Your task to perform on an android device: open app "Google Sheets" (install if not already installed) Image 0: 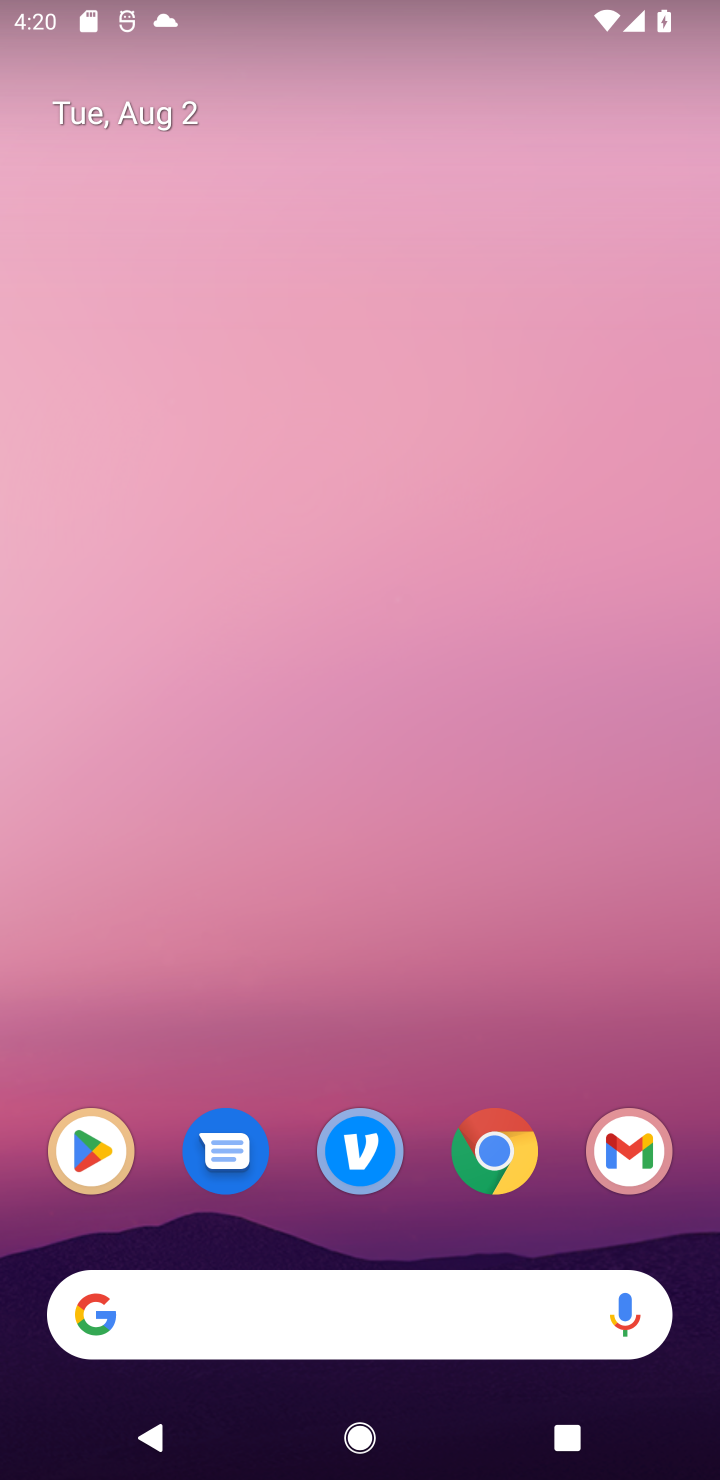
Step 0: drag from (433, 516) to (441, 432)
Your task to perform on an android device: open app "Google Sheets" (install if not already installed) Image 1: 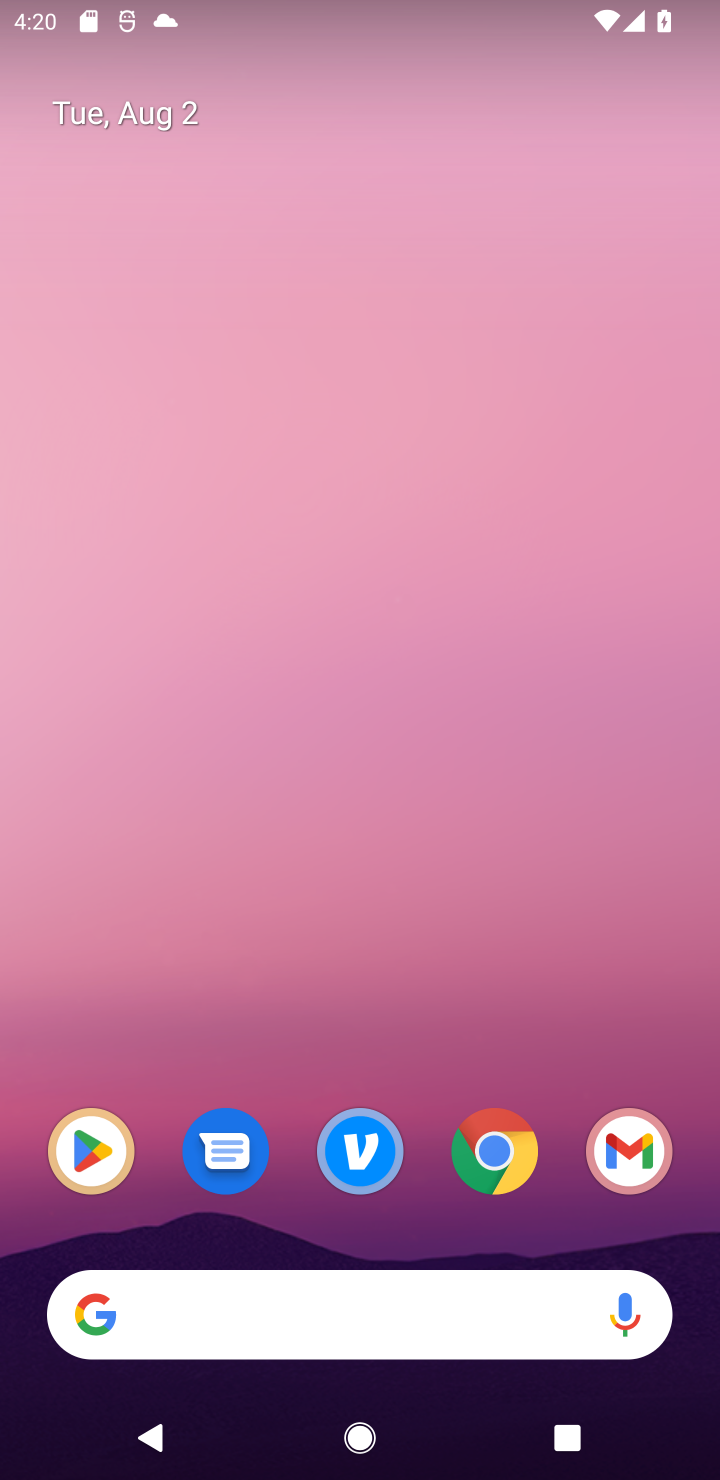
Step 1: drag from (370, 1326) to (340, 355)
Your task to perform on an android device: open app "Google Sheets" (install if not already installed) Image 2: 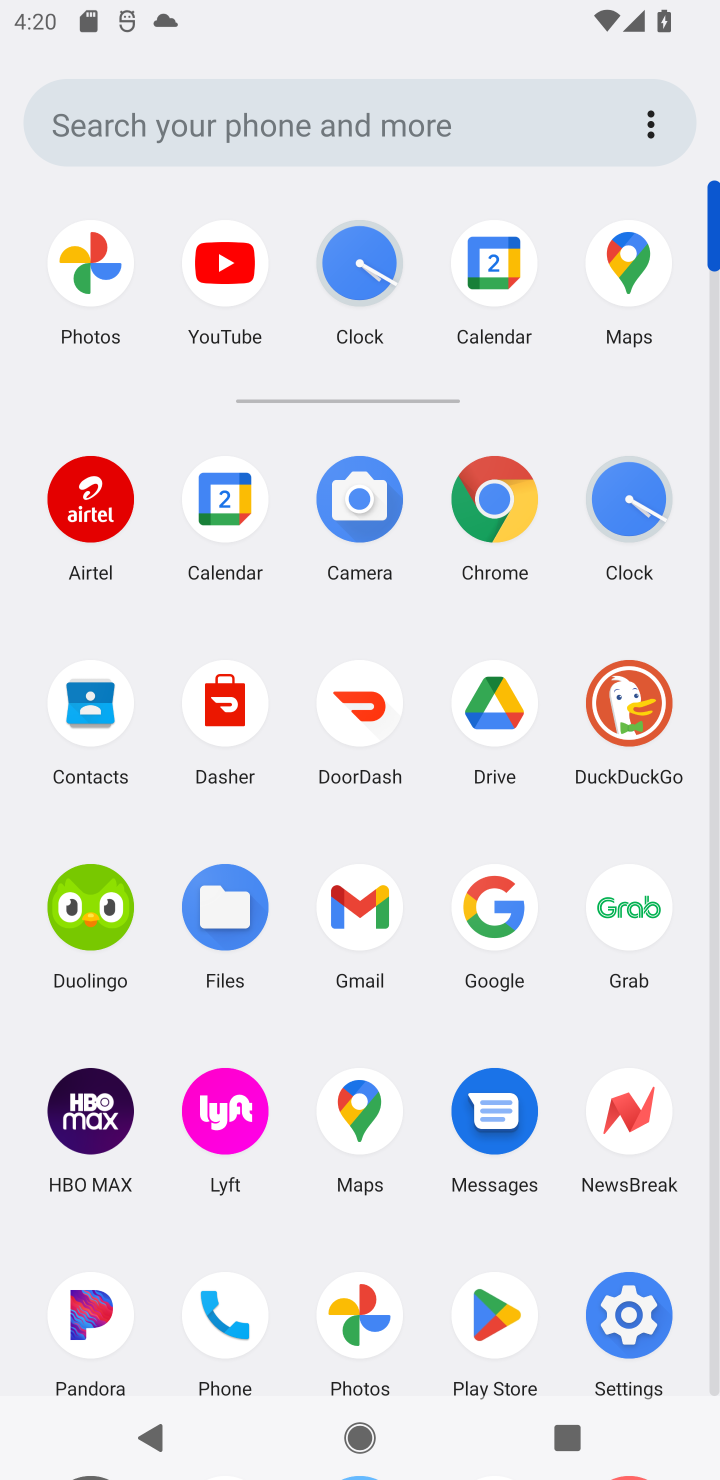
Step 2: click (485, 1340)
Your task to perform on an android device: open app "Google Sheets" (install if not already installed) Image 3: 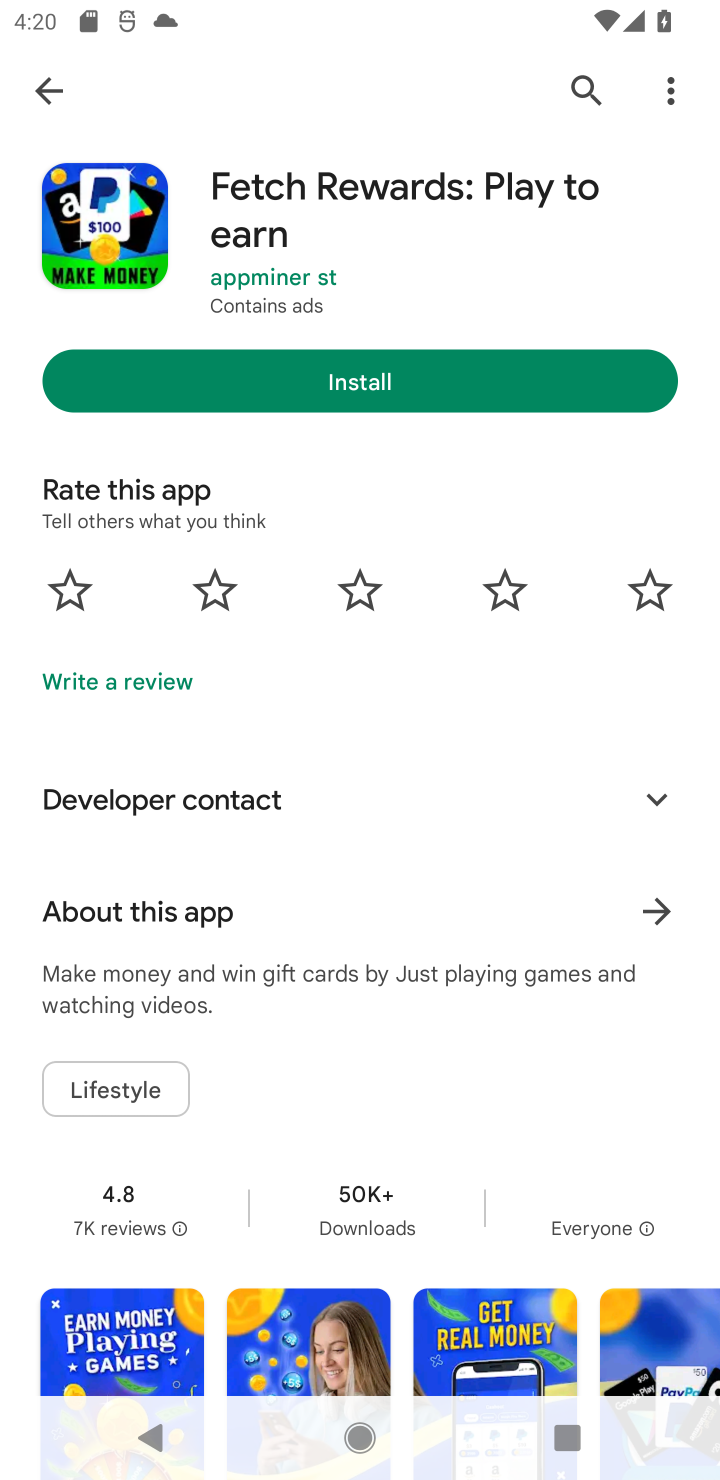
Step 3: click (44, 81)
Your task to perform on an android device: open app "Google Sheets" (install if not already installed) Image 4: 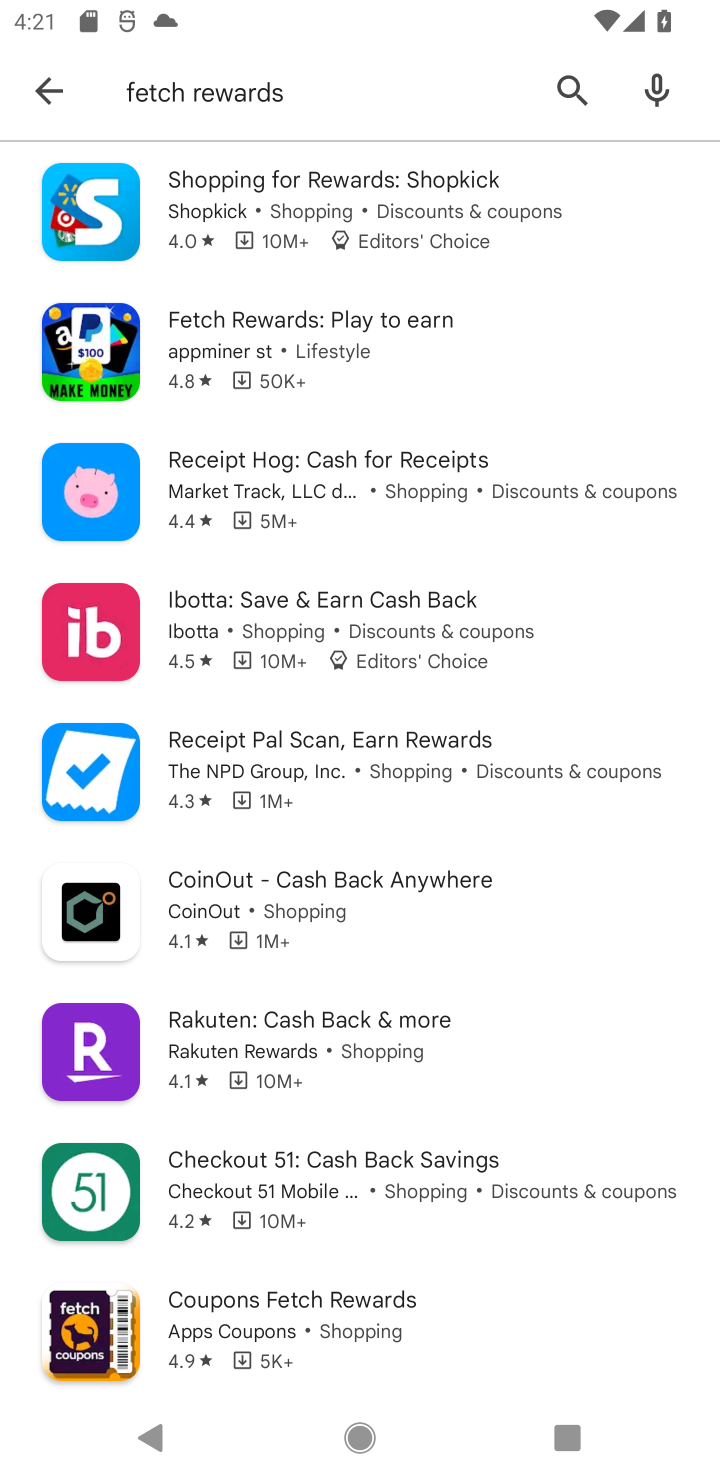
Step 4: click (57, 90)
Your task to perform on an android device: open app "Google Sheets" (install if not already installed) Image 5: 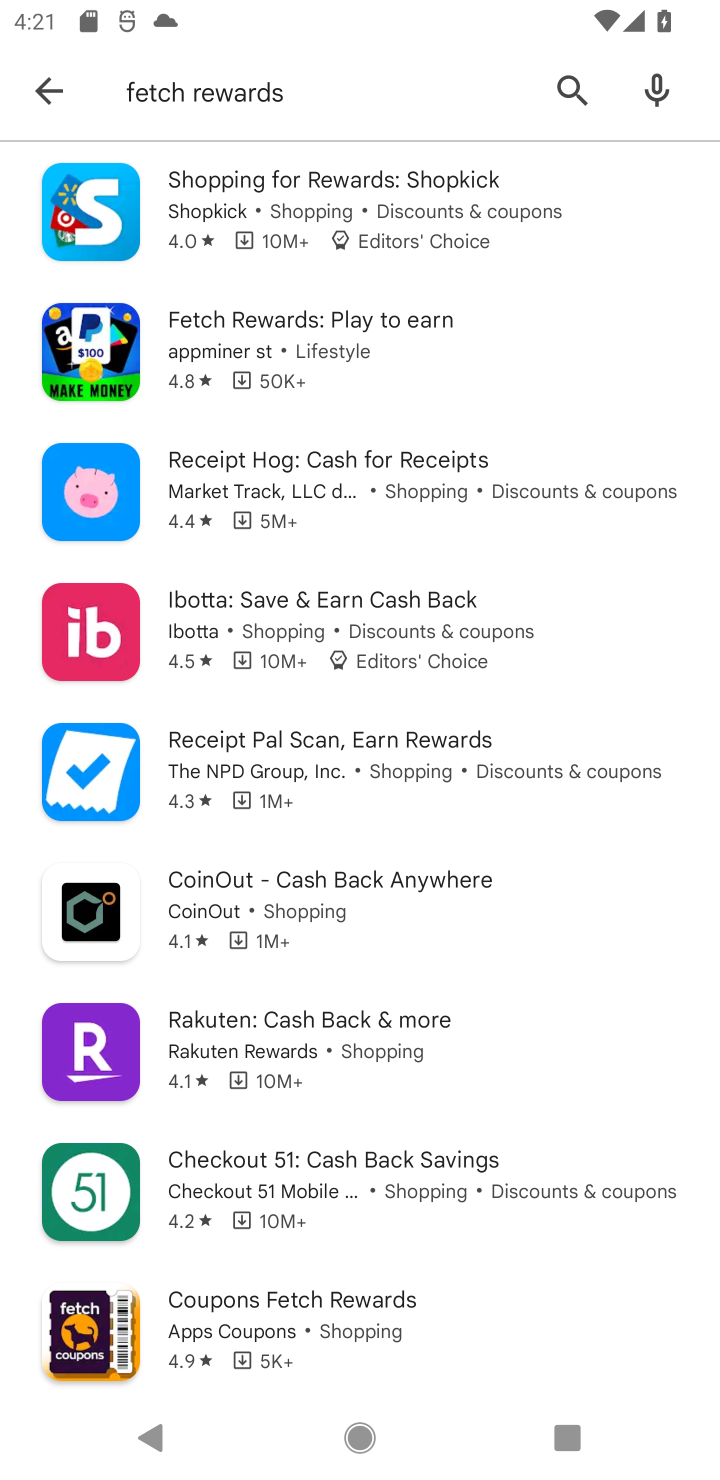
Step 5: click (47, 90)
Your task to perform on an android device: open app "Google Sheets" (install if not already installed) Image 6: 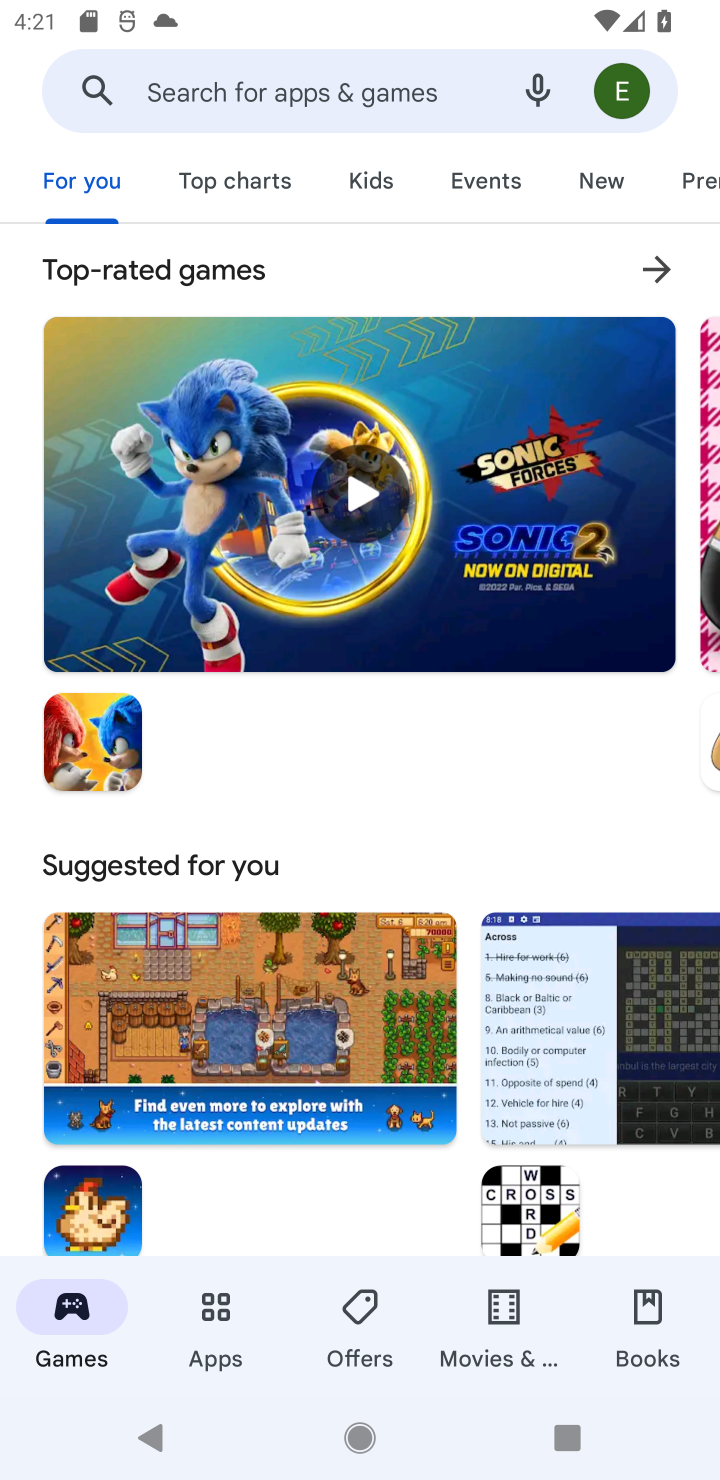
Step 6: click (221, 99)
Your task to perform on an android device: open app "Google Sheets" (install if not already installed) Image 7: 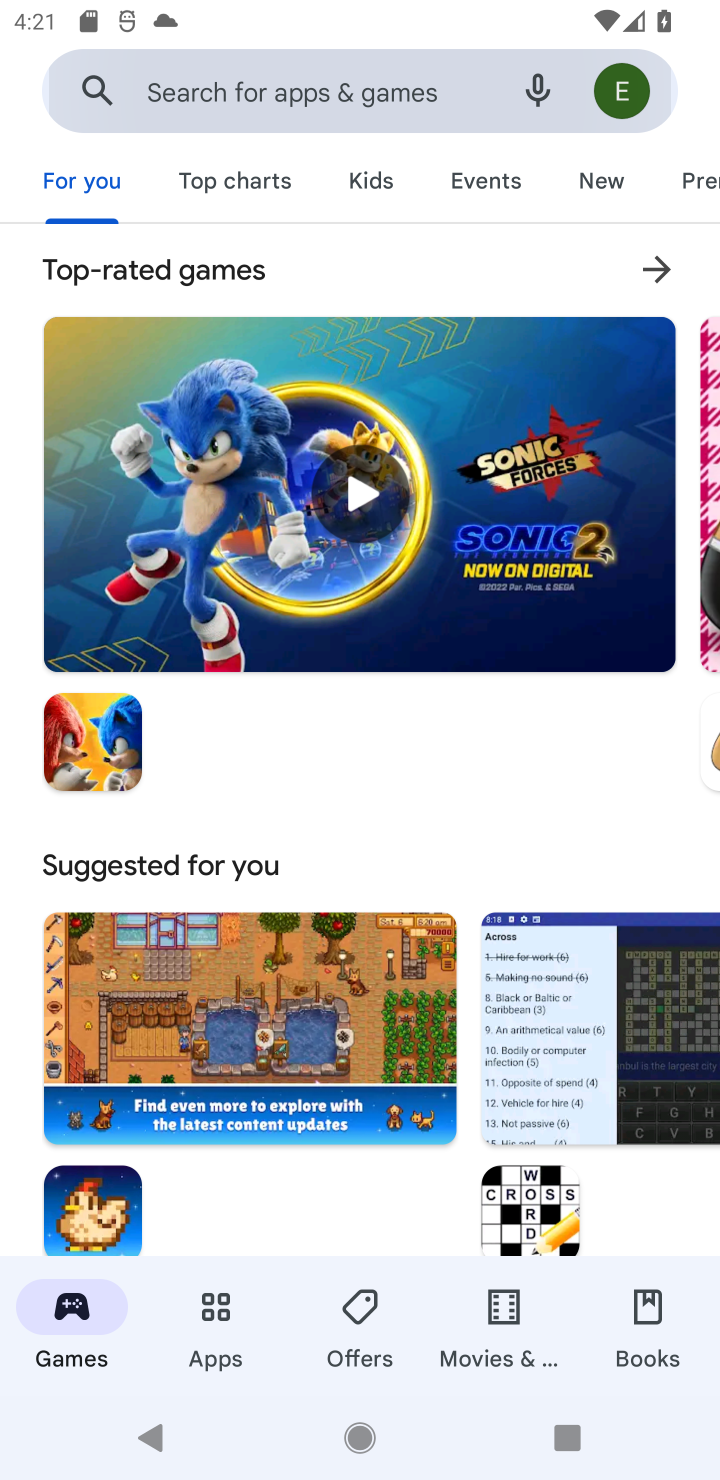
Step 7: type "Google Sheets"
Your task to perform on an android device: open app "Google Sheets" (install if not already installed) Image 8: 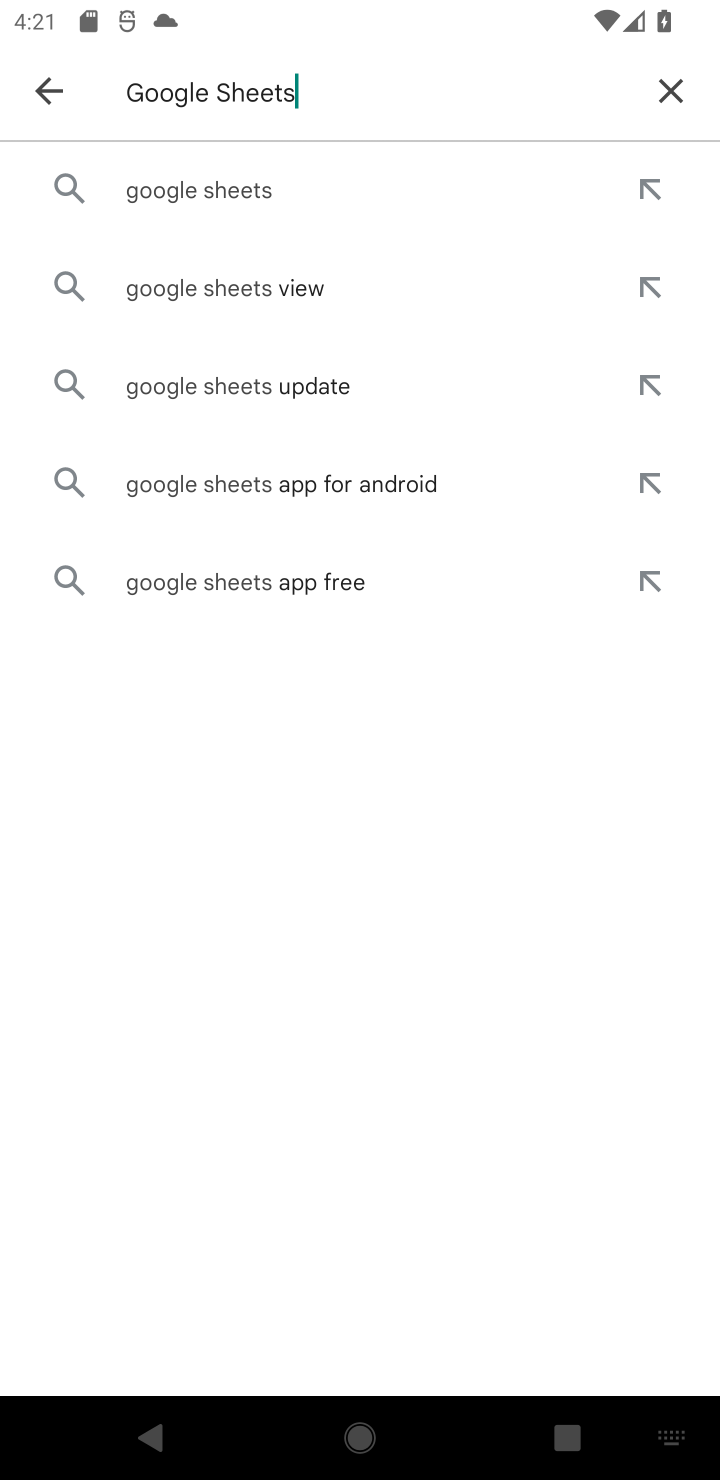
Step 8: click (316, 180)
Your task to perform on an android device: open app "Google Sheets" (install if not already installed) Image 9: 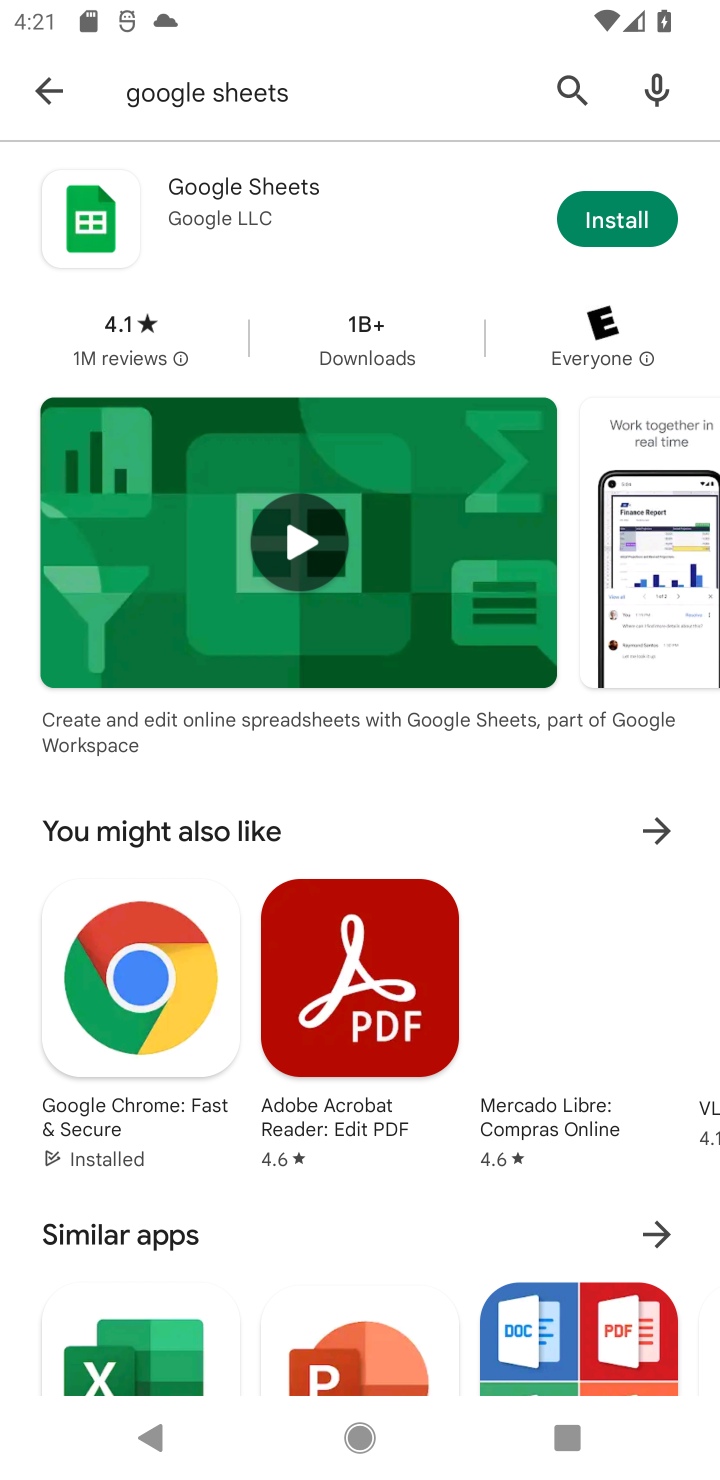
Step 9: click (45, 84)
Your task to perform on an android device: open app "Google Sheets" (install if not already installed) Image 10: 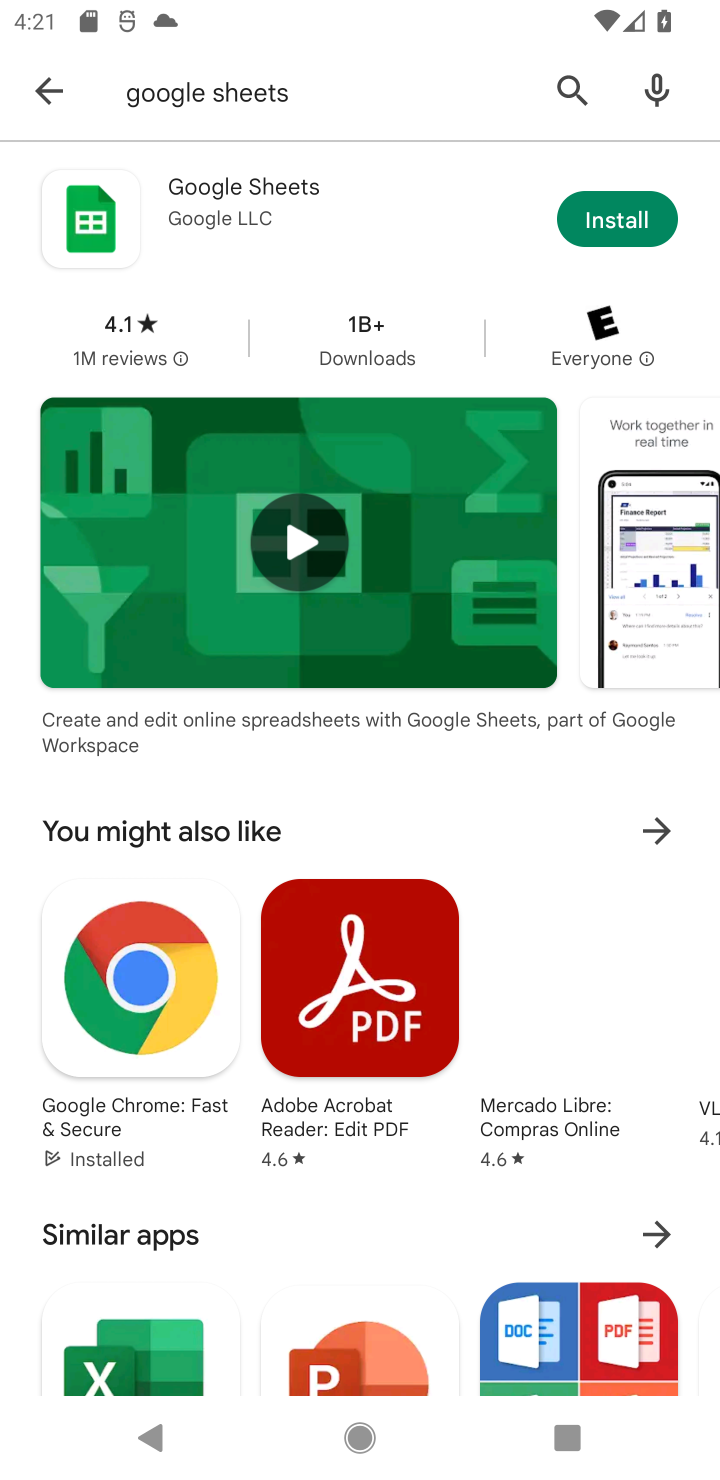
Step 10: click (46, 77)
Your task to perform on an android device: open app "Google Sheets" (install if not already installed) Image 11: 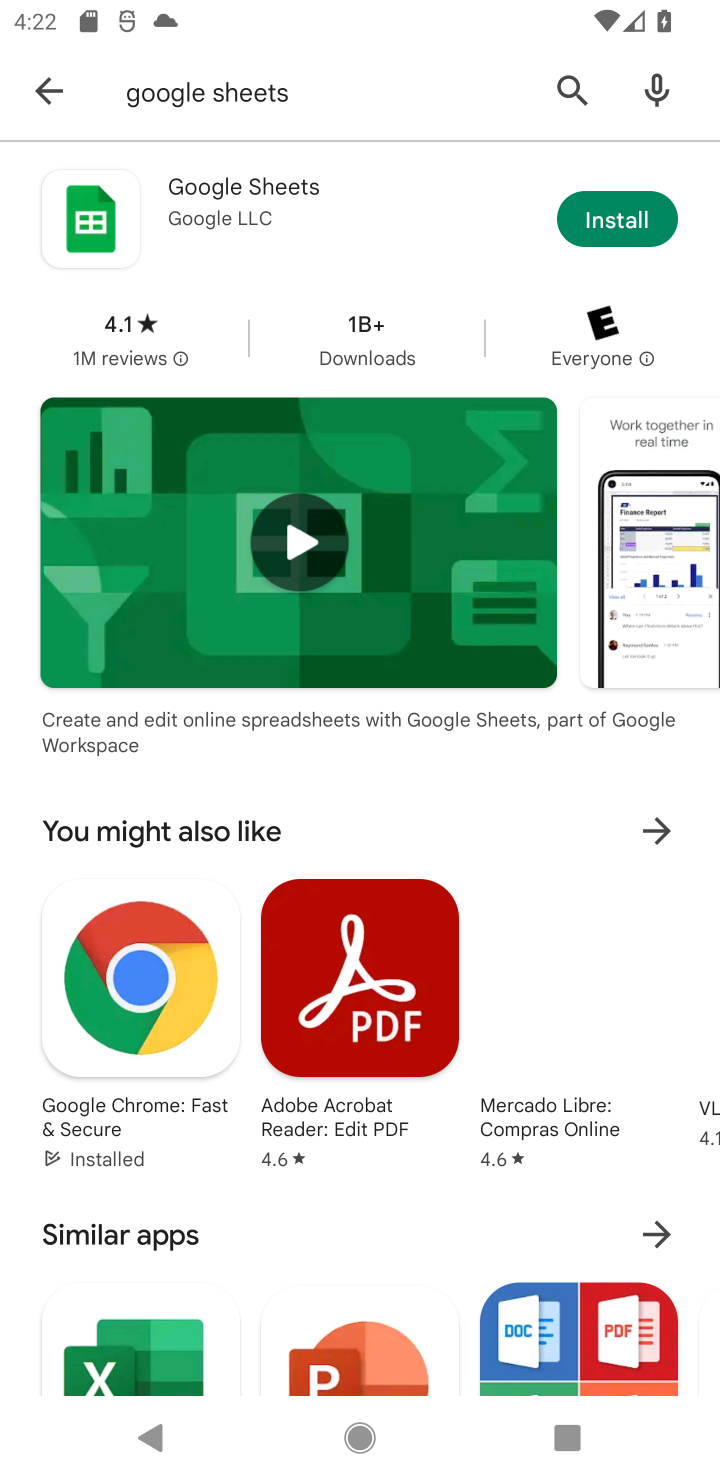
Step 11: click (586, 221)
Your task to perform on an android device: open app "Google Sheets" (install if not already installed) Image 12: 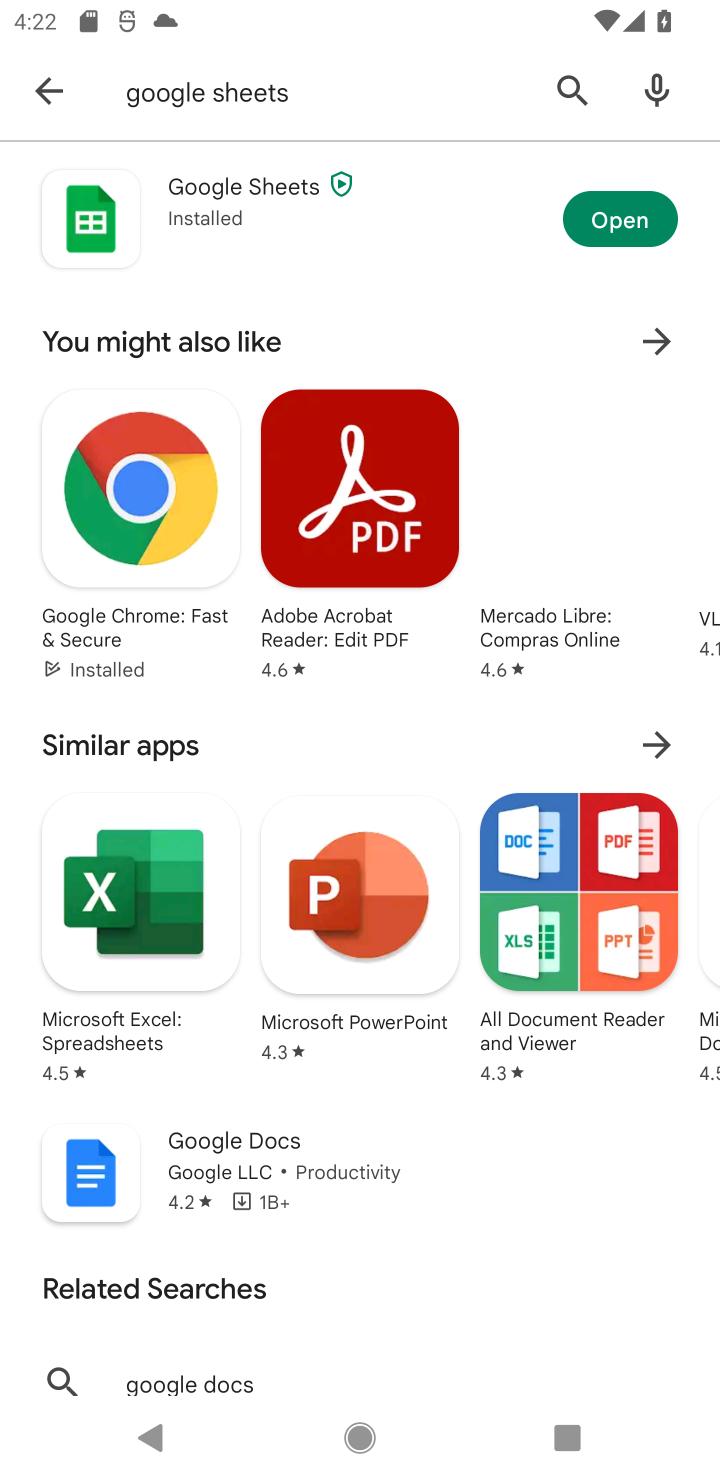
Step 12: click (648, 217)
Your task to perform on an android device: open app "Google Sheets" (install if not already installed) Image 13: 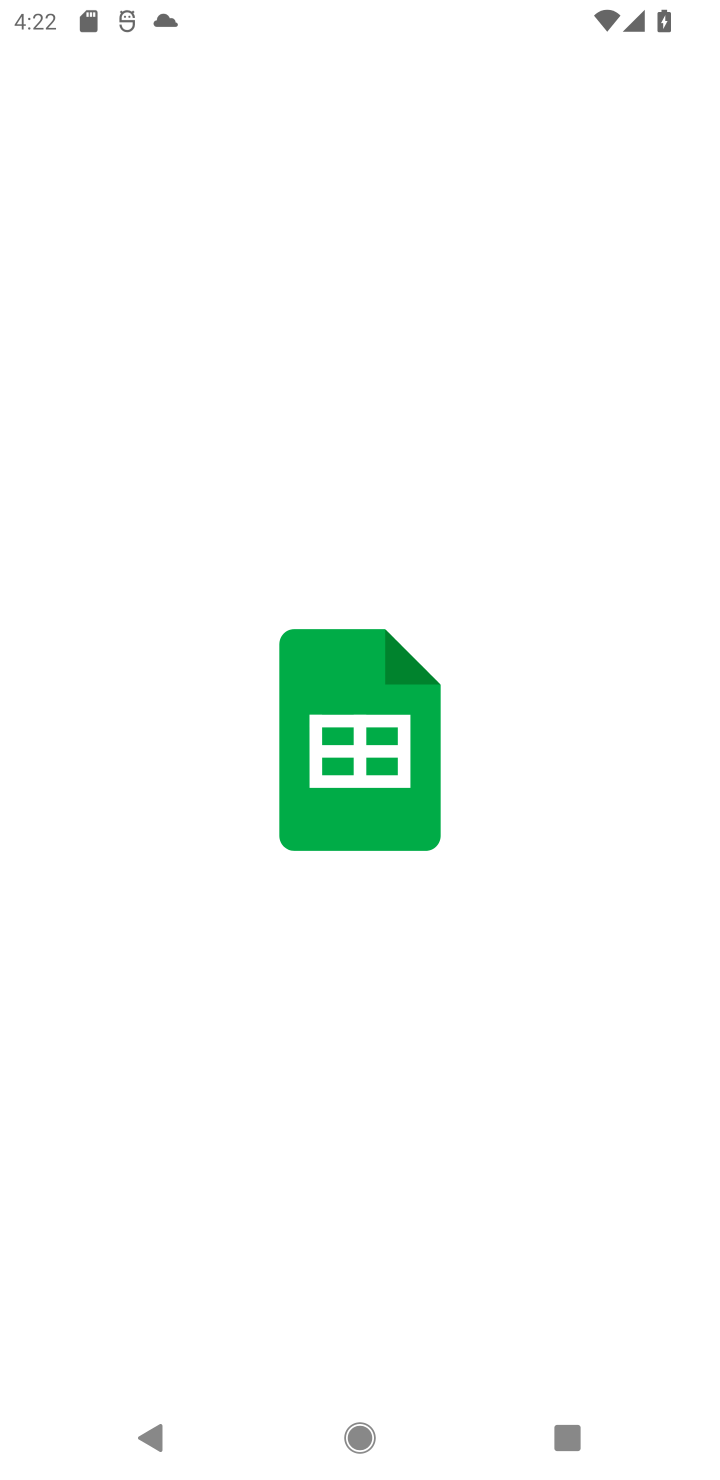
Step 13: task complete